Your task to perform on an android device: check out phone information Image 0: 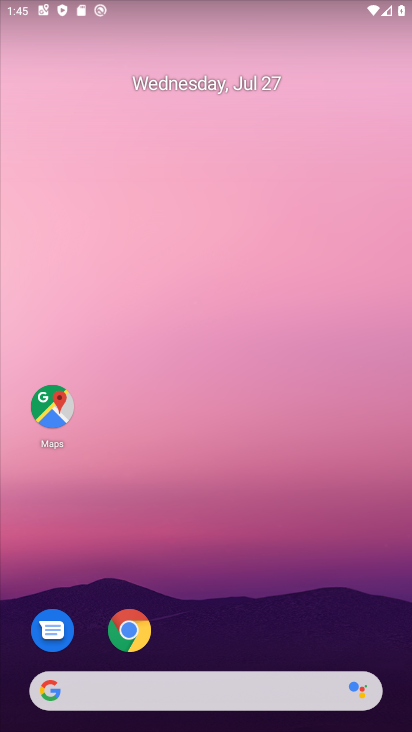
Step 0: drag from (353, 641) to (293, 92)
Your task to perform on an android device: check out phone information Image 1: 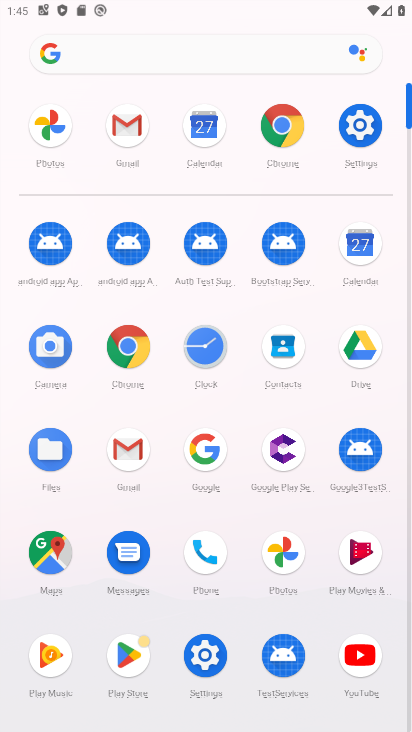
Step 1: click (206, 656)
Your task to perform on an android device: check out phone information Image 2: 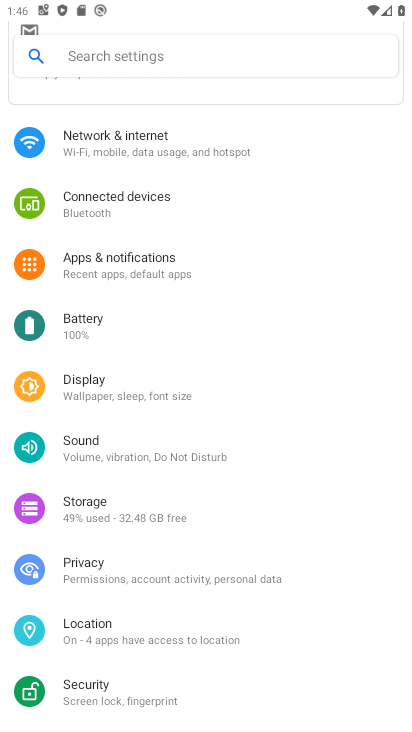
Step 2: drag from (329, 607) to (312, 275)
Your task to perform on an android device: check out phone information Image 3: 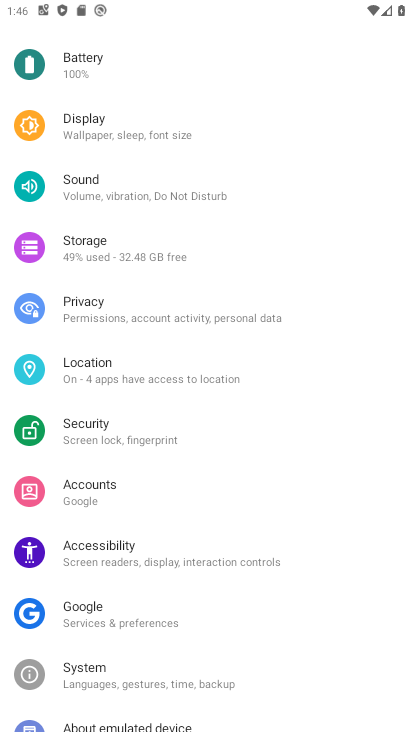
Step 3: drag from (277, 682) to (286, 269)
Your task to perform on an android device: check out phone information Image 4: 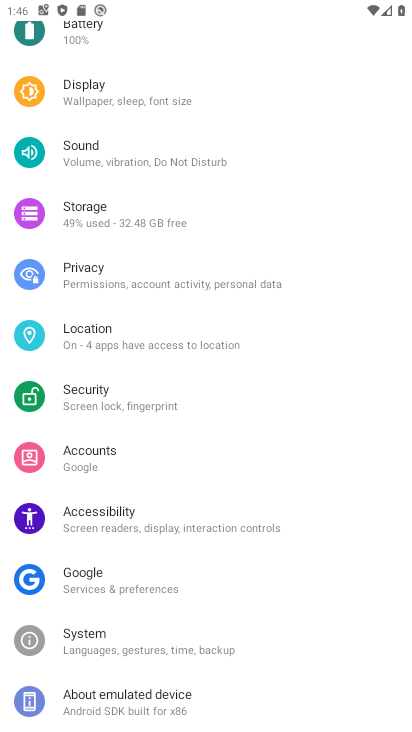
Step 4: click (100, 698)
Your task to perform on an android device: check out phone information Image 5: 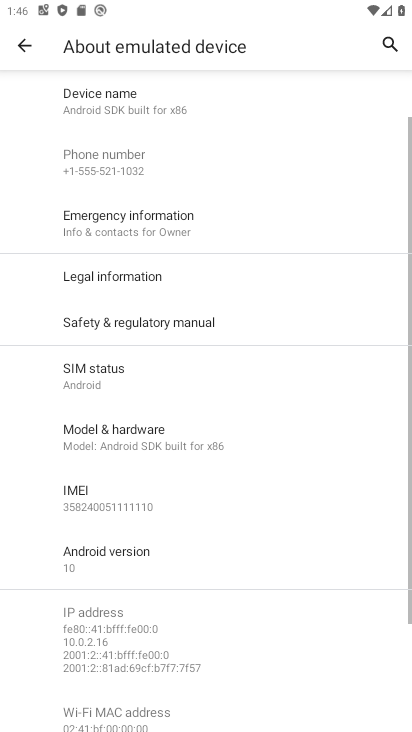
Step 5: task complete